Your task to perform on an android device: turn off location Image 0: 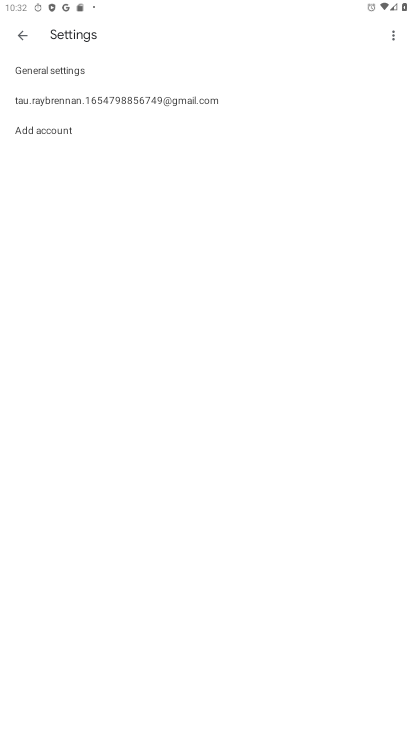
Step 0: press home button
Your task to perform on an android device: turn off location Image 1: 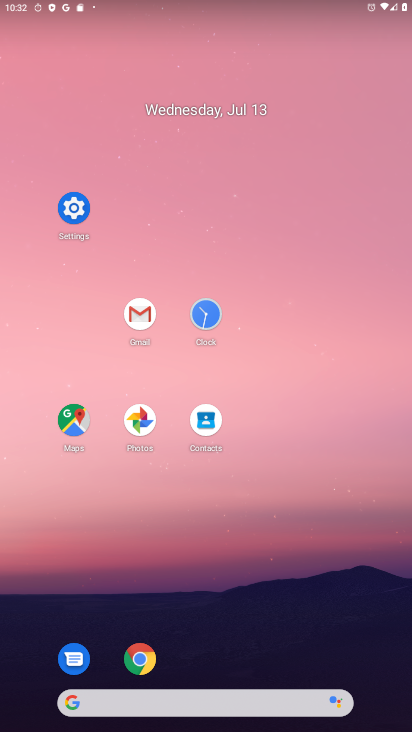
Step 1: click (81, 213)
Your task to perform on an android device: turn off location Image 2: 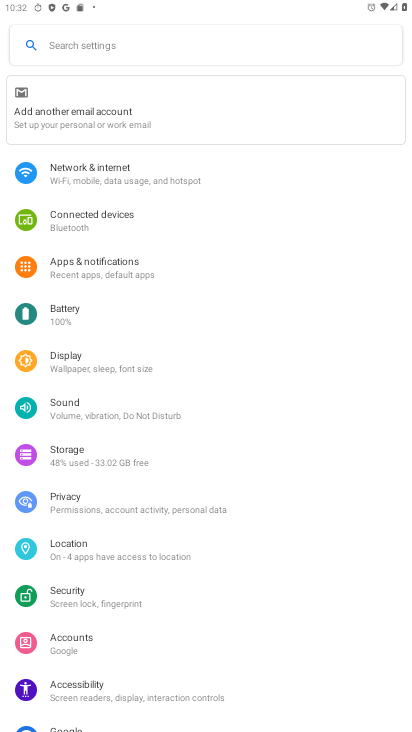
Step 2: click (121, 545)
Your task to perform on an android device: turn off location Image 3: 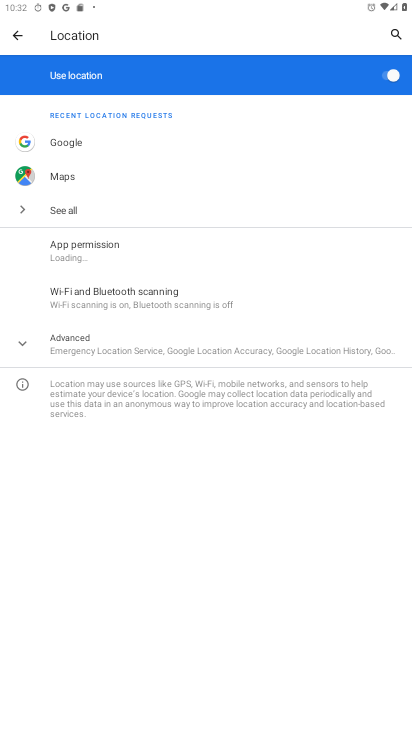
Step 3: click (401, 76)
Your task to perform on an android device: turn off location Image 4: 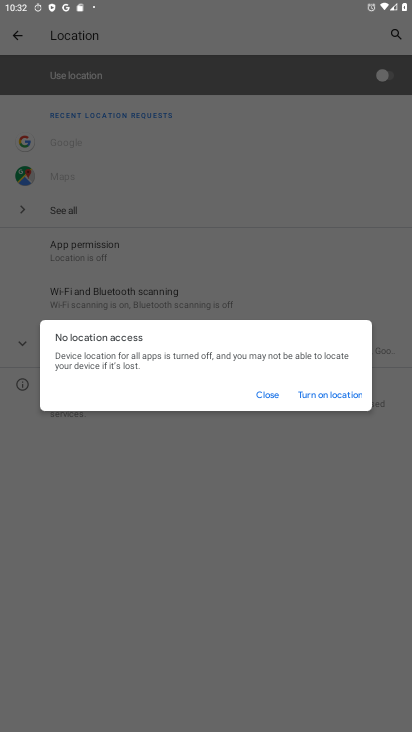
Step 4: task complete